Your task to perform on an android device: Search for "razer nari" on target.com, select the first entry, and add it to the cart. Image 0: 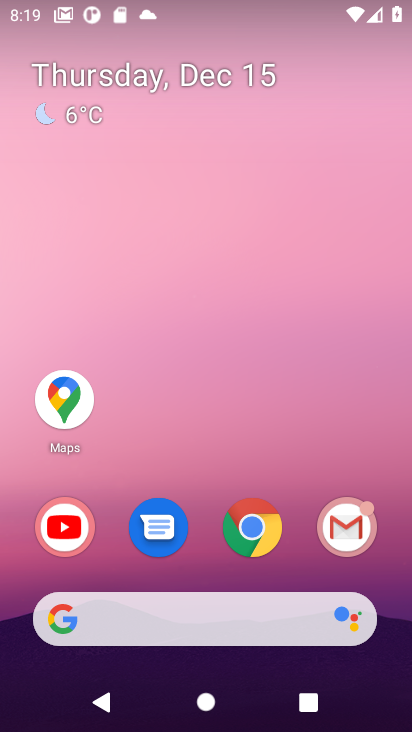
Step 0: click (234, 549)
Your task to perform on an android device: Search for "razer nari" on target.com, select the first entry, and add it to the cart. Image 1: 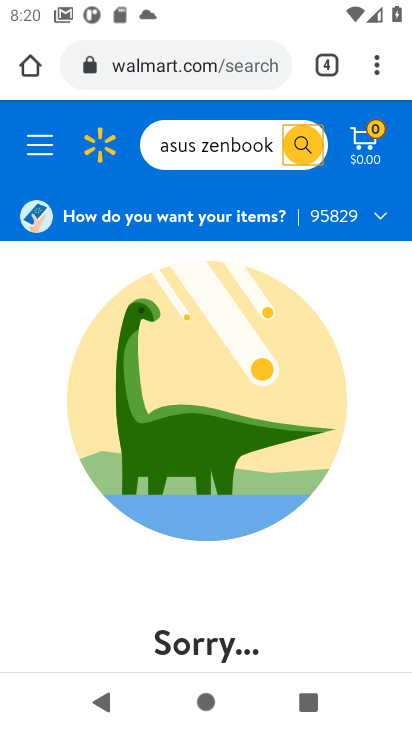
Step 1: click (163, 81)
Your task to perform on an android device: Search for "razer nari" on target.com, select the first entry, and add it to the cart. Image 2: 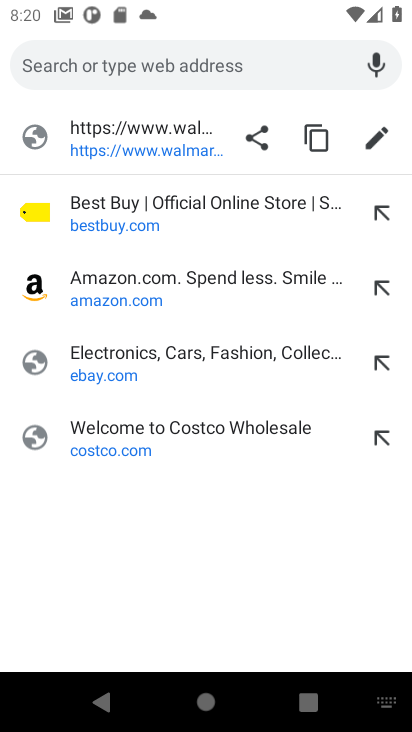
Step 2: type "target"
Your task to perform on an android device: Search for "razer nari" on target.com, select the first entry, and add it to the cart. Image 3: 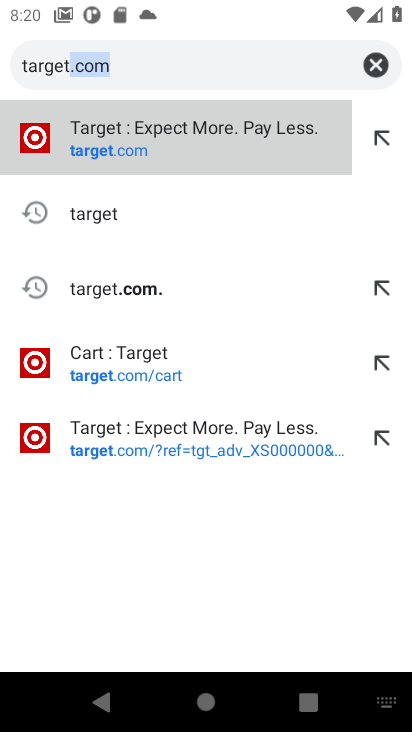
Step 3: click (226, 155)
Your task to perform on an android device: Search for "razer nari" on target.com, select the first entry, and add it to the cart. Image 4: 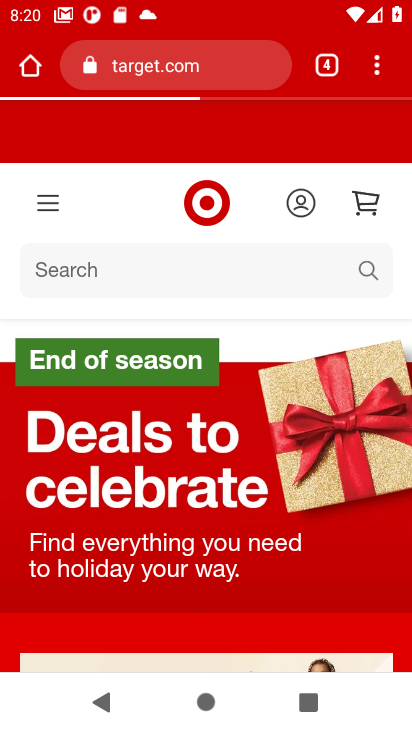
Step 4: click (145, 267)
Your task to perform on an android device: Search for "razer nari" on target.com, select the first entry, and add it to the cart. Image 5: 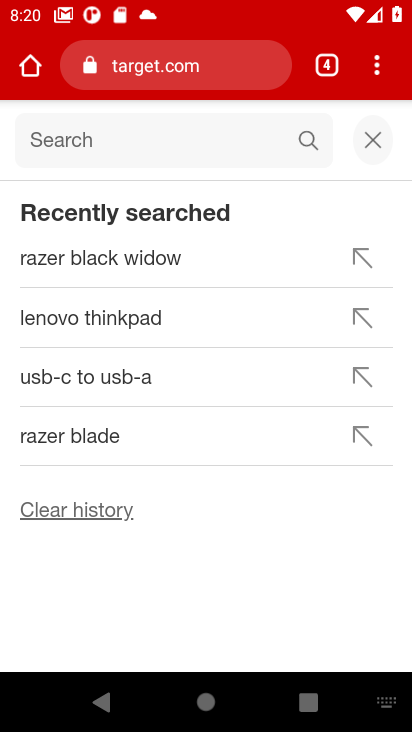
Step 5: type "razernari"
Your task to perform on an android device: Search for "razer nari" on target.com, select the first entry, and add it to the cart. Image 6: 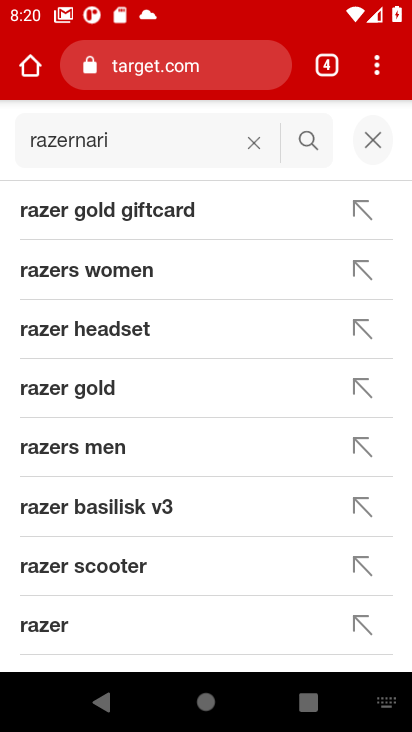
Step 6: click (297, 149)
Your task to perform on an android device: Search for "razer nari" on target.com, select the first entry, and add it to the cart. Image 7: 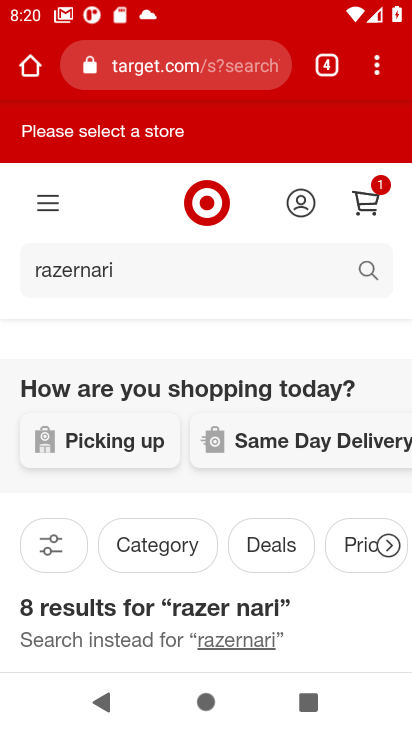
Step 7: drag from (356, 605) to (336, 290)
Your task to perform on an android device: Search for "razer nari" on target.com, select the first entry, and add it to the cart. Image 8: 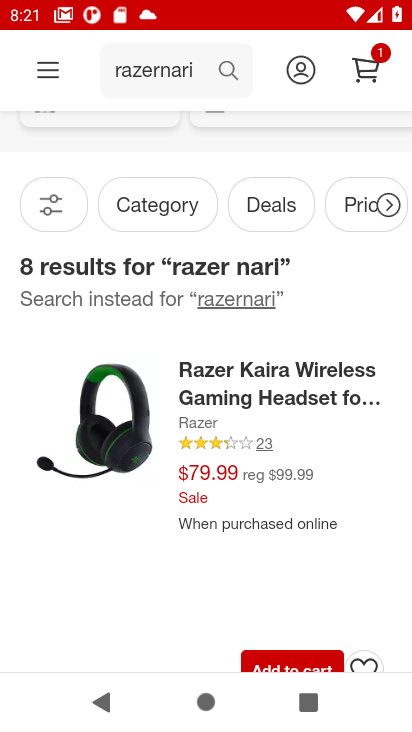
Step 8: click (275, 647)
Your task to perform on an android device: Search for "razer nari" on target.com, select the first entry, and add it to the cart. Image 9: 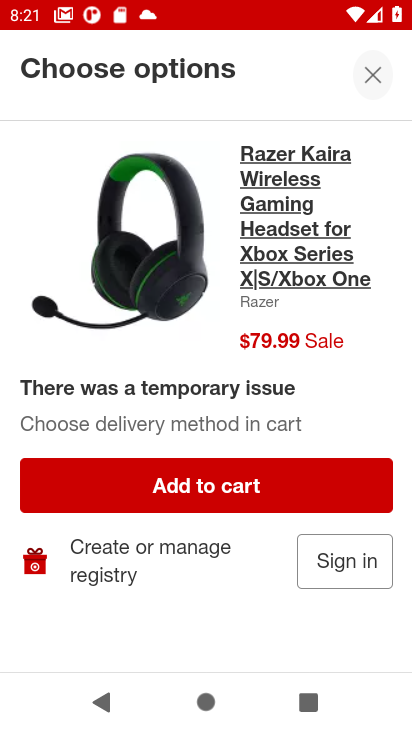
Step 9: click (158, 479)
Your task to perform on an android device: Search for "razer nari" on target.com, select the first entry, and add it to the cart. Image 10: 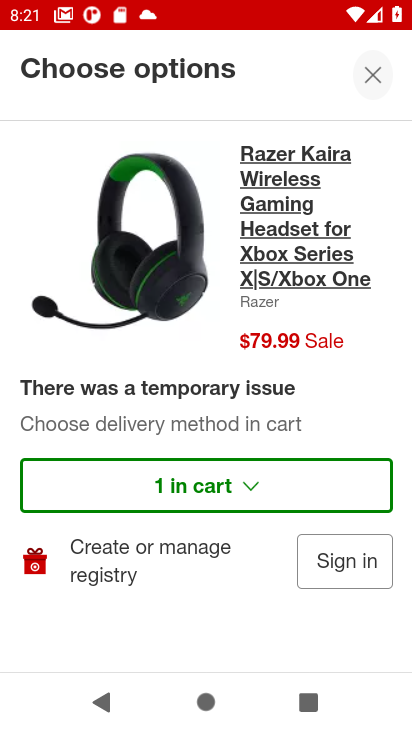
Step 10: task complete